Your task to perform on an android device: turn off notifications in google photos Image 0: 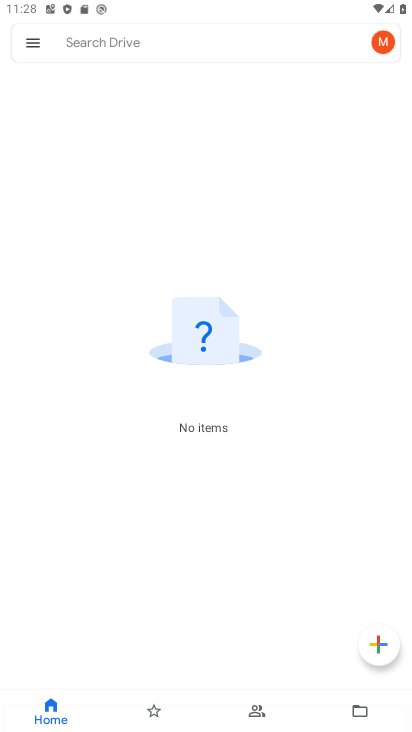
Step 0: press home button
Your task to perform on an android device: turn off notifications in google photos Image 1: 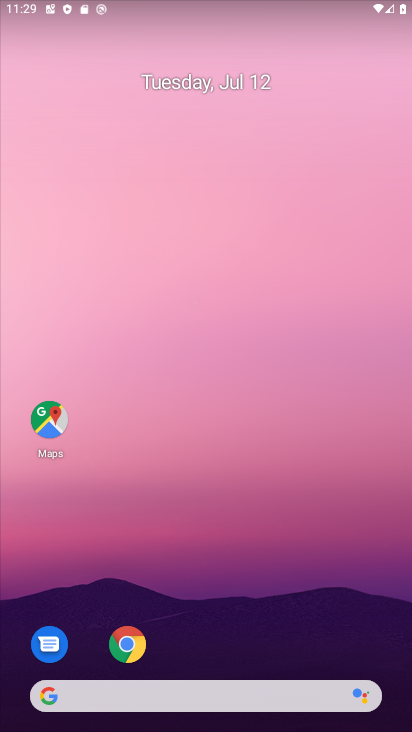
Step 1: drag from (231, 724) to (280, 4)
Your task to perform on an android device: turn off notifications in google photos Image 2: 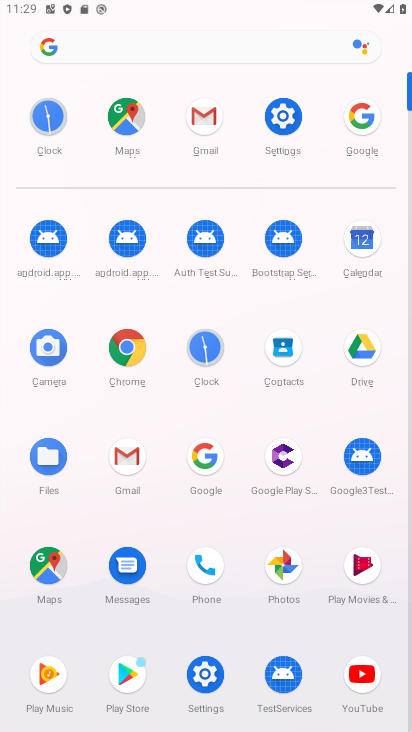
Step 2: click (286, 560)
Your task to perform on an android device: turn off notifications in google photos Image 3: 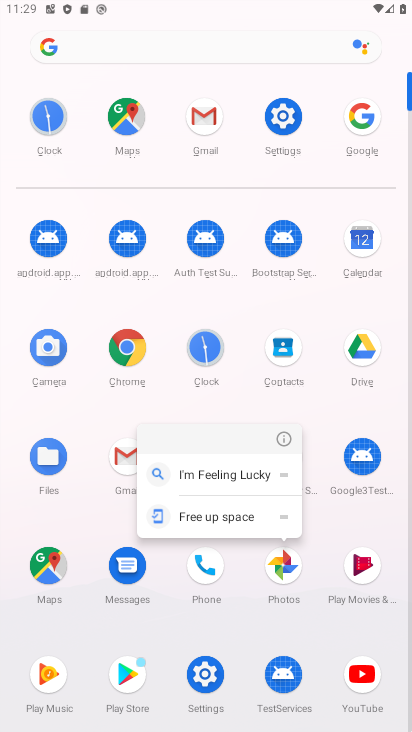
Step 3: click (284, 435)
Your task to perform on an android device: turn off notifications in google photos Image 4: 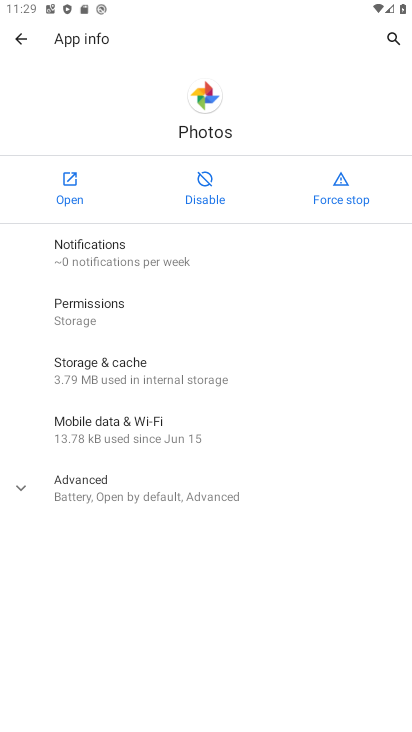
Step 4: click (125, 250)
Your task to perform on an android device: turn off notifications in google photos Image 5: 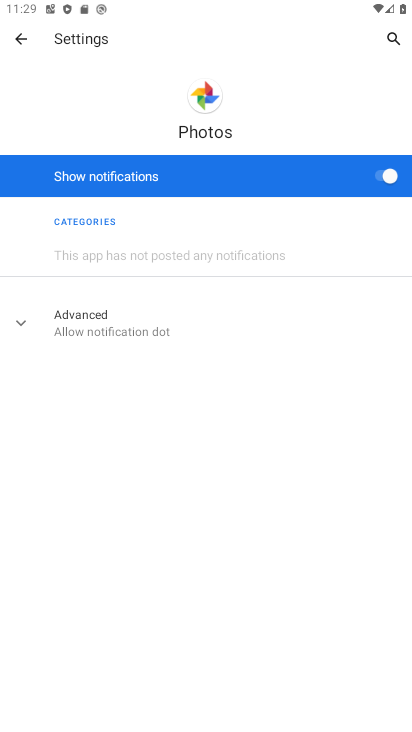
Step 5: click (391, 176)
Your task to perform on an android device: turn off notifications in google photos Image 6: 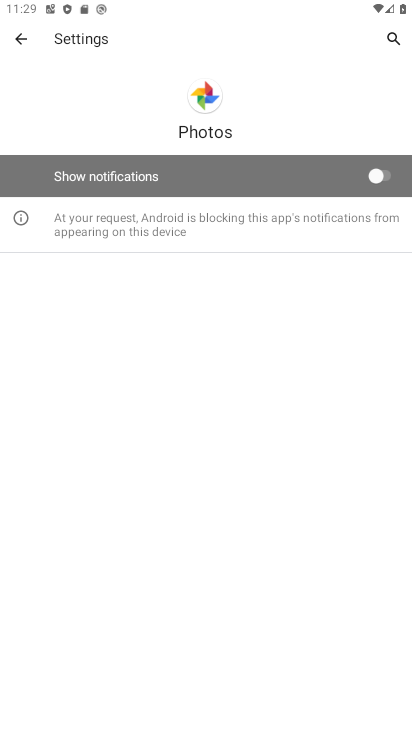
Step 6: task complete